Your task to perform on an android device: open sync settings in chrome Image 0: 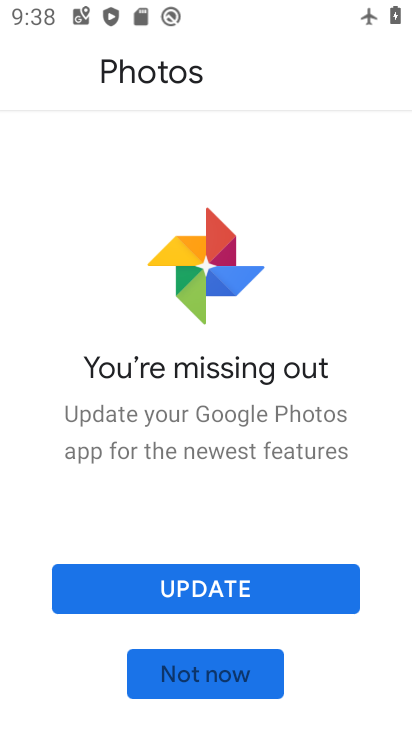
Step 0: press home button
Your task to perform on an android device: open sync settings in chrome Image 1: 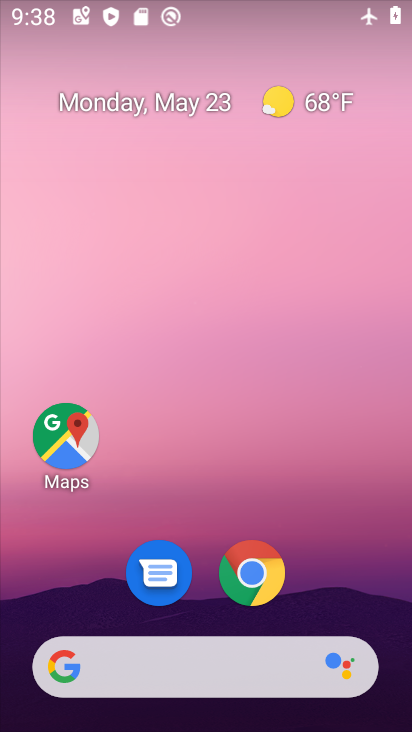
Step 1: drag from (235, 636) to (315, 152)
Your task to perform on an android device: open sync settings in chrome Image 2: 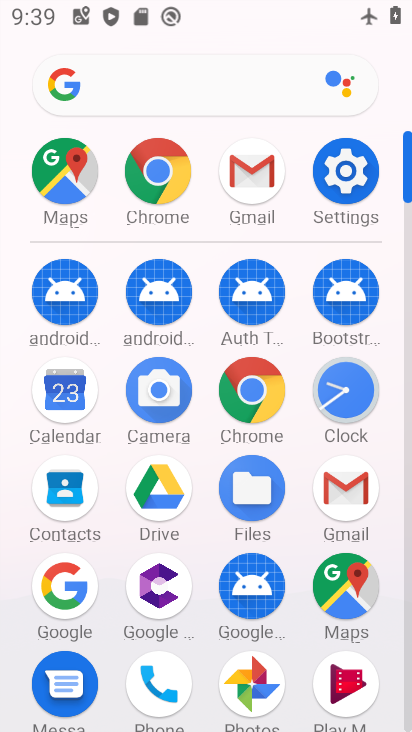
Step 2: click (260, 406)
Your task to perform on an android device: open sync settings in chrome Image 3: 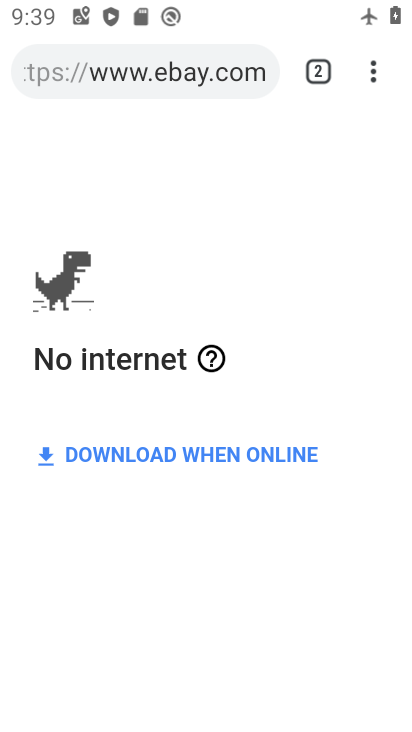
Step 3: click (362, 79)
Your task to perform on an android device: open sync settings in chrome Image 4: 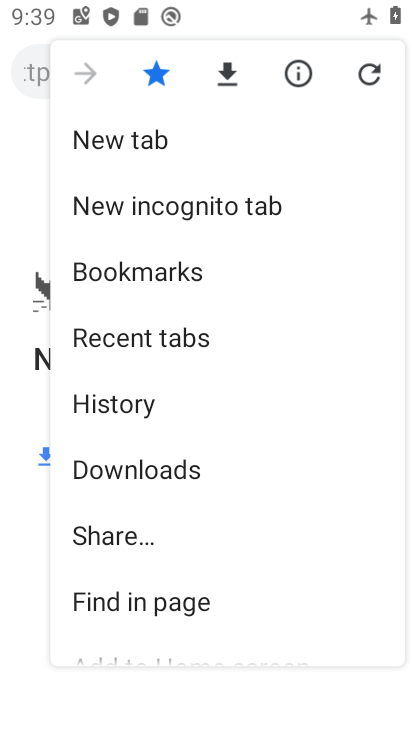
Step 4: drag from (252, 578) to (279, 304)
Your task to perform on an android device: open sync settings in chrome Image 5: 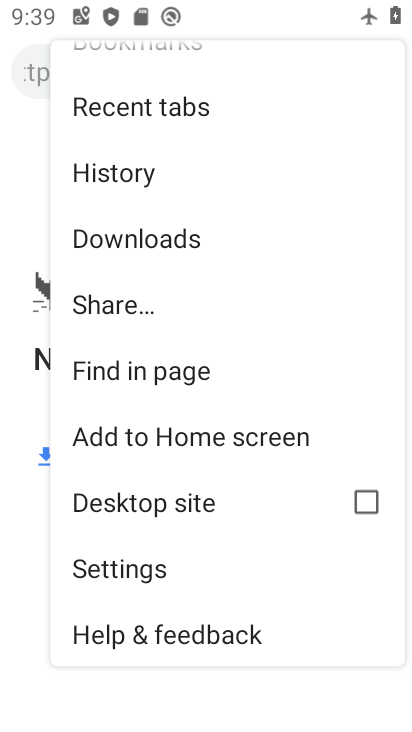
Step 5: click (122, 572)
Your task to perform on an android device: open sync settings in chrome Image 6: 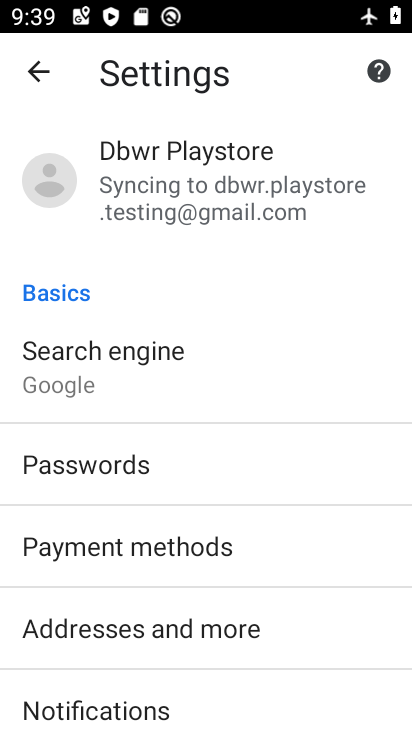
Step 6: click (266, 210)
Your task to perform on an android device: open sync settings in chrome Image 7: 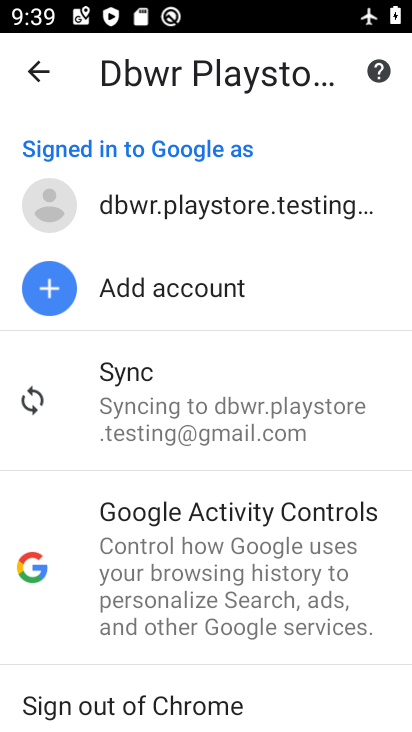
Step 7: click (240, 400)
Your task to perform on an android device: open sync settings in chrome Image 8: 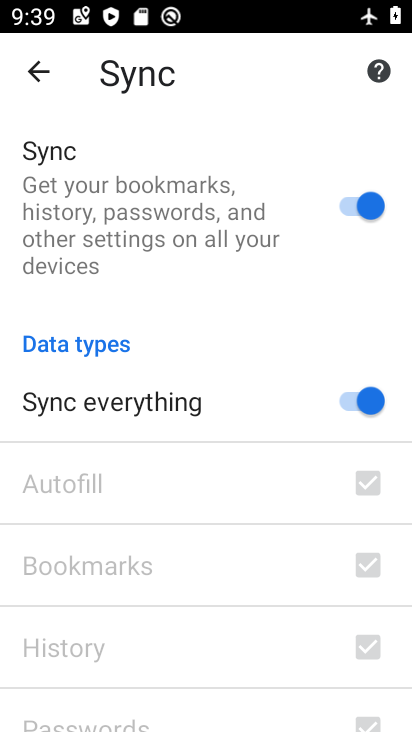
Step 8: task complete